Your task to perform on an android device: Turn on the flashlight Image 0: 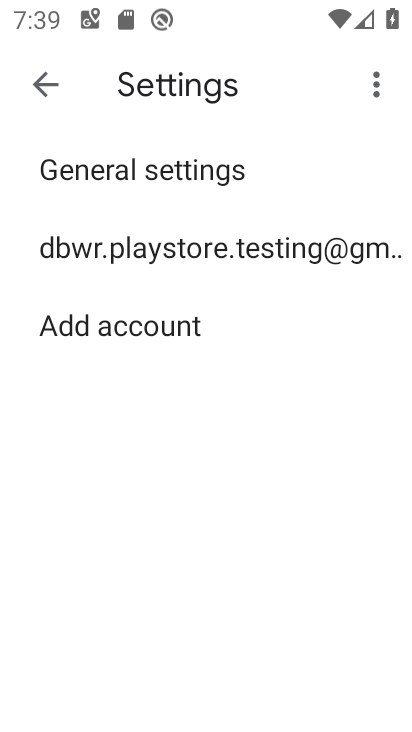
Step 0: press home button
Your task to perform on an android device: Turn on the flashlight Image 1: 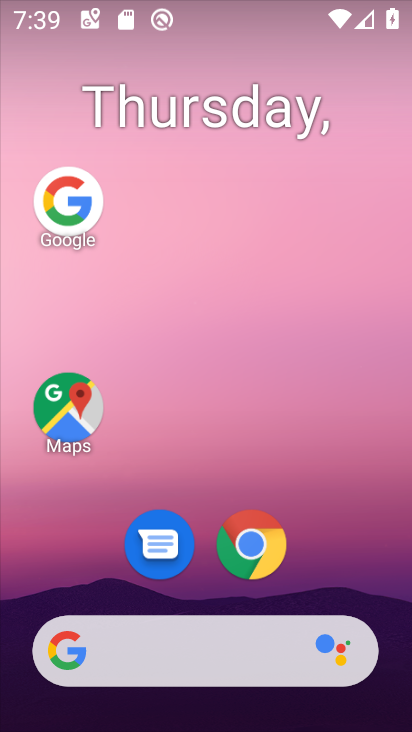
Step 1: drag from (255, 692) to (251, 172)
Your task to perform on an android device: Turn on the flashlight Image 2: 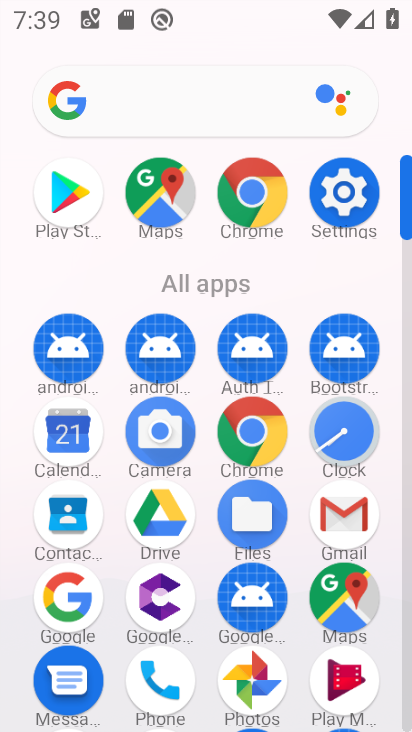
Step 2: click (354, 179)
Your task to perform on an android device: Turn on the flashlight Image 3: 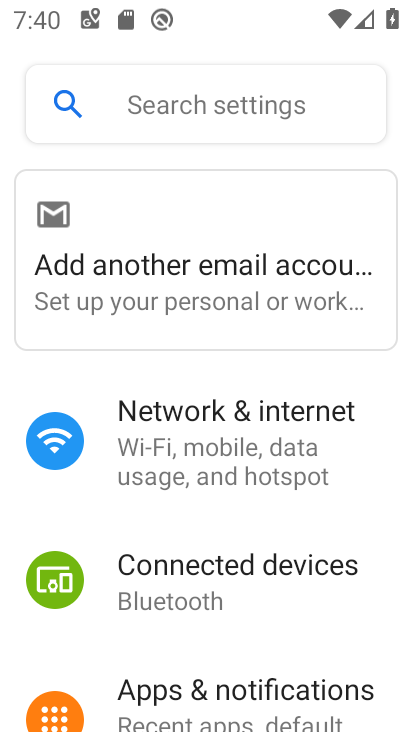
Step 3: click (209, 102)
Your task to perform on an android device: Turn on the flashlight Image 4: 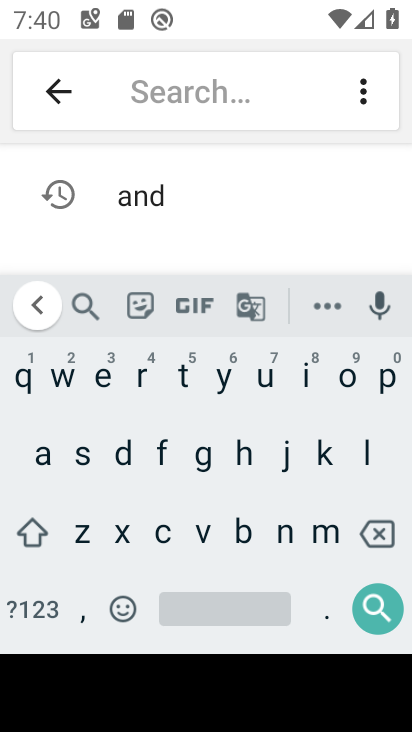
Step 4: click (160, 461)
Your task to perform on an android device: Turn on the flashlight Image 5: 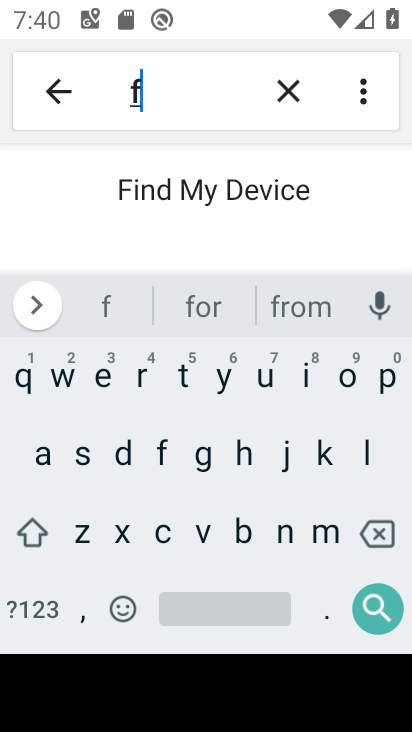
Step 5: click (364, 451)
Your task to perform on an android device: Turn on the flashlight Image 6: 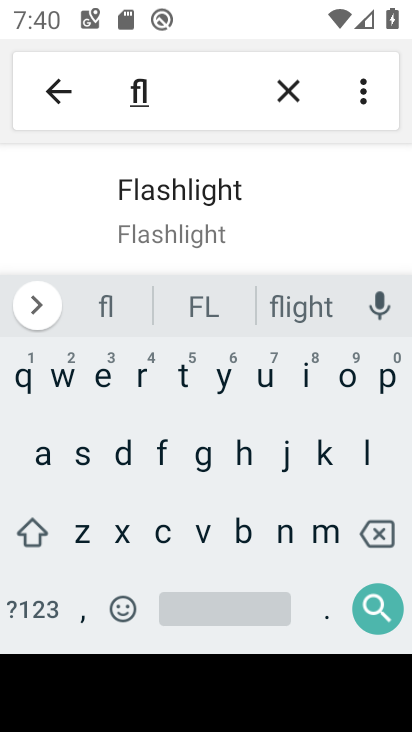
Step 6: click (239, 197)
Your task to perform on an android device: Turn on the flashlight Image 7: 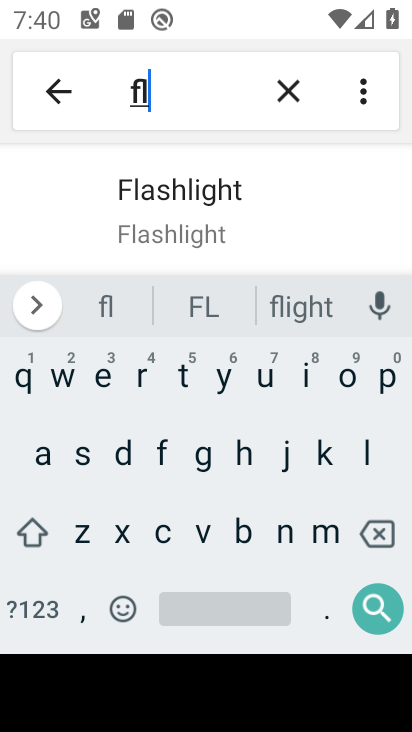
Step 7: task complete